Your task to perform on an android device: turn off location history Image 0: 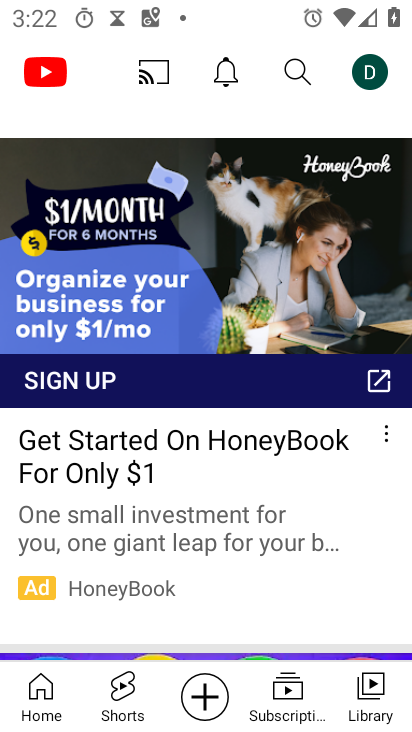
Step 0: press home button
Your task to perform on an android device: turn off location history Image 1: 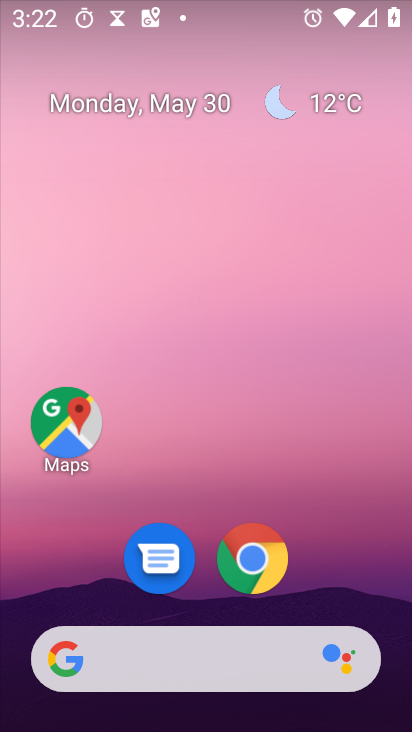
Step 1: drag from (191, 492) to (275, 34)
Your task to perform on an android device: turn off location history Image 2: 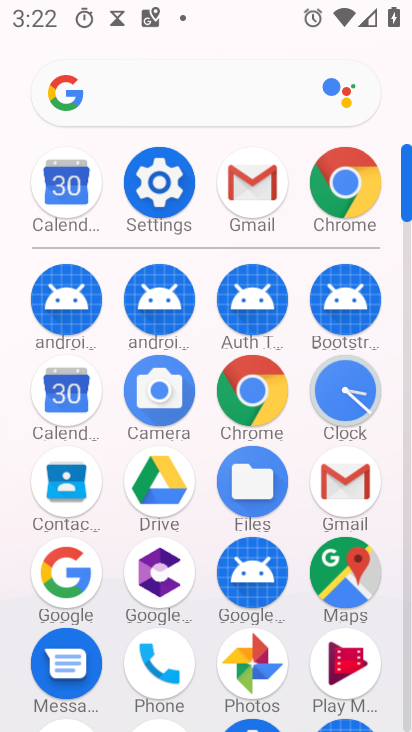
Step 2: click (155, 181)
Your task to perform on an android device: turn off location history Image 3: 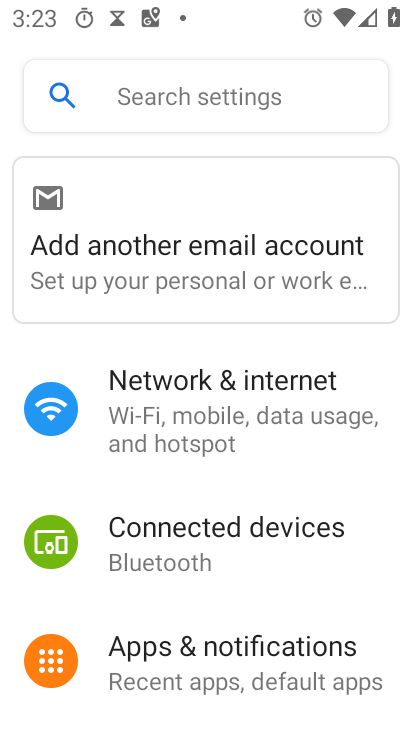
Step 3: drag from (188, 624) to (281, 101)
Your task to perform on an android device: turn off location history Image 4: 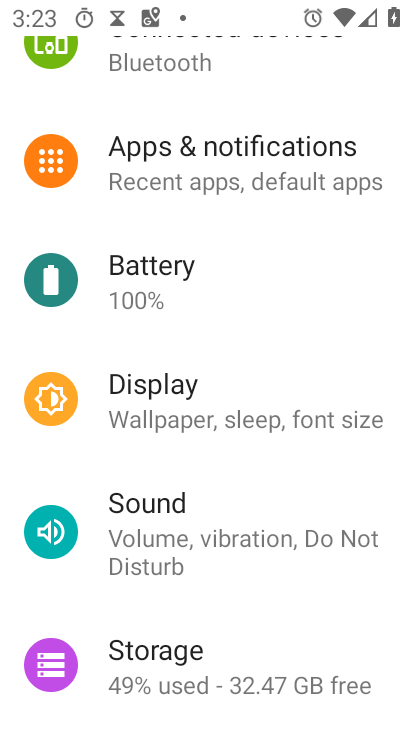
Step 4: drag from (206, 566) to (337, 133)
Your task to perform on an android device: turn off location history Image 5: 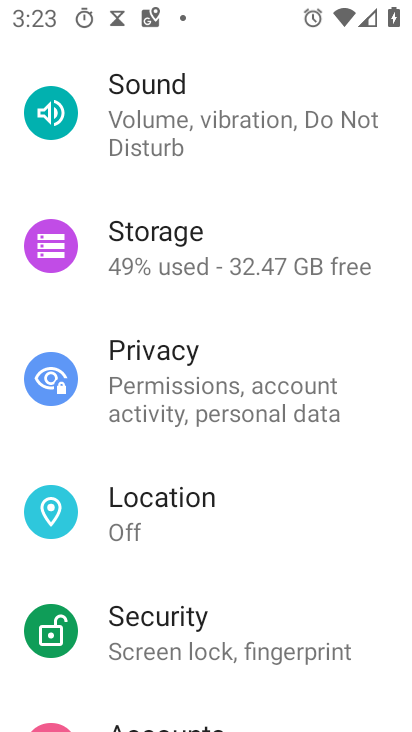
Step 5: click (157, 509)
Your task to perform on an android device: turn off location history Image 6: 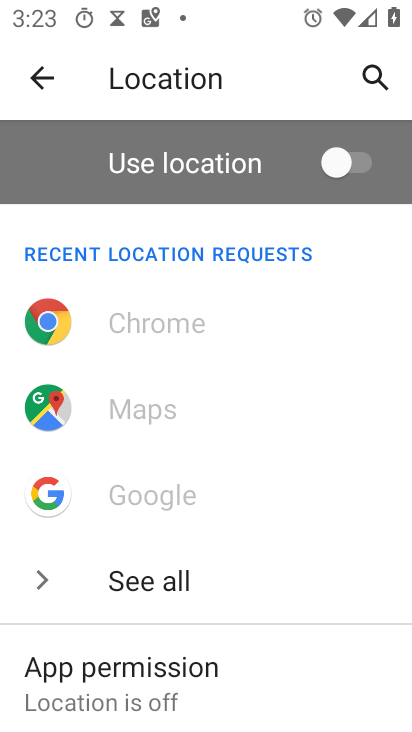
Step 6: drag from (155, 671) to (279, 132)
Your task to perform on an android device: turn off location history Image 7: 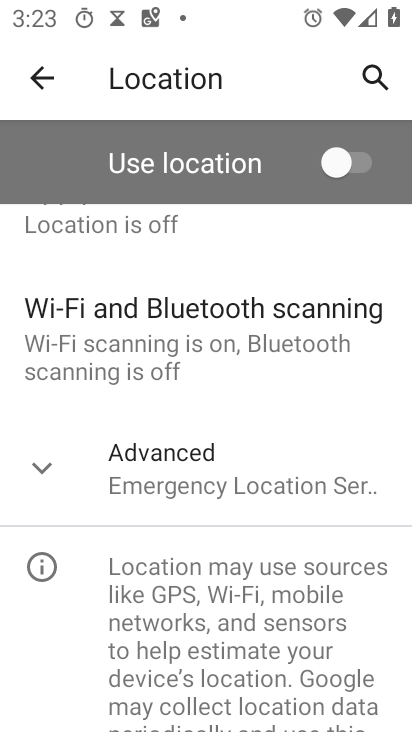
Step 7: click (188, 464)
Your task to perform on an android device: turn off location history Image 8: 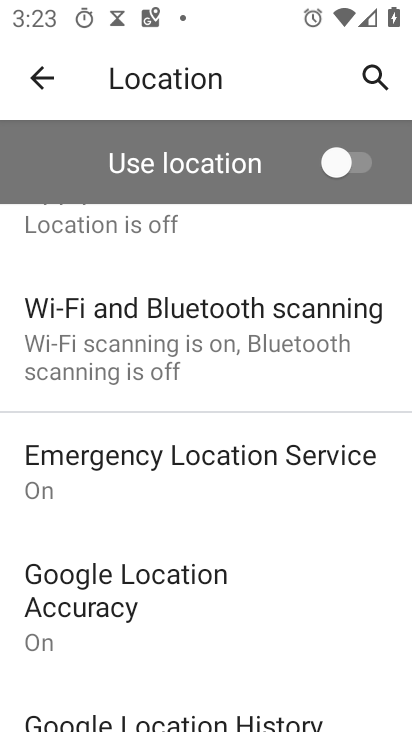
Step 8: drag from (143, 669) to (264, 209)
Your task to perform on an android device: turn off location history Image 9: 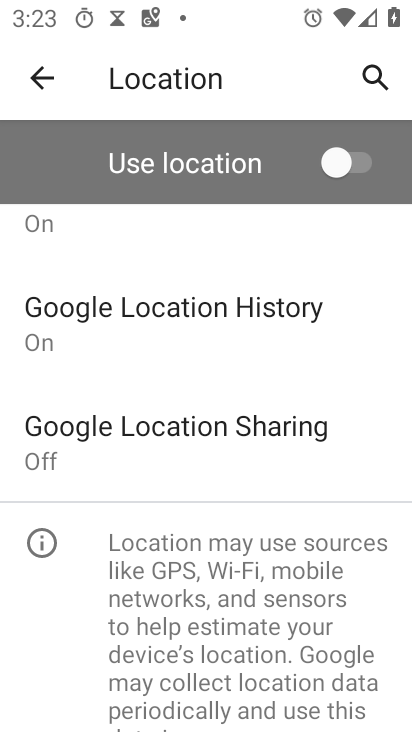
Step 9: click (202, 327)
Your task to perform on an android device: turn off location history Image 10: 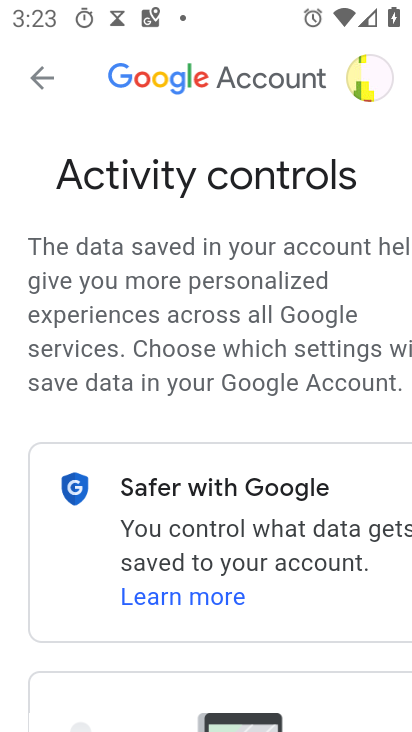
Step 10: drag from (175, 593) to (257, 64)
Your task to perform on an android device: turn off location history Image 11: 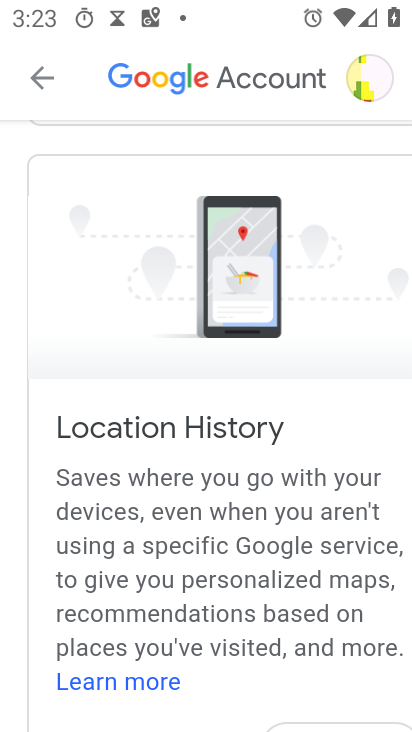
Step 11: drag from (226, 597) to (221, 151)
Your task to perform on an android device: turn off location history Image 12: 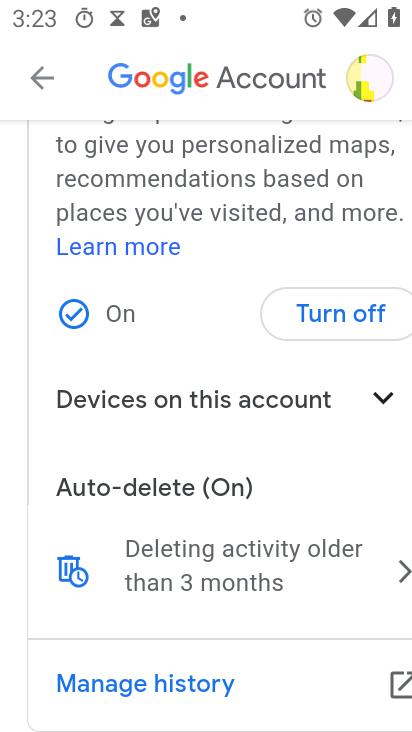
Step 12: click (321, 312)
Your task to perform on an android device: turn off location history Image 13: 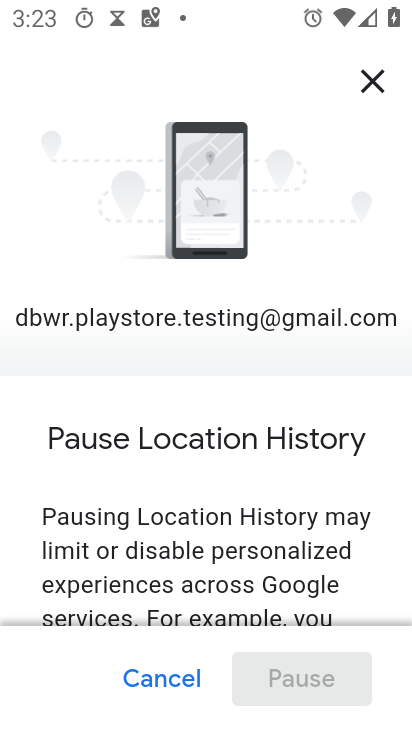
Step 13: drag from (244, 573) to (303, 94)
Your task to perform on an android device: turn off location history Image 14: 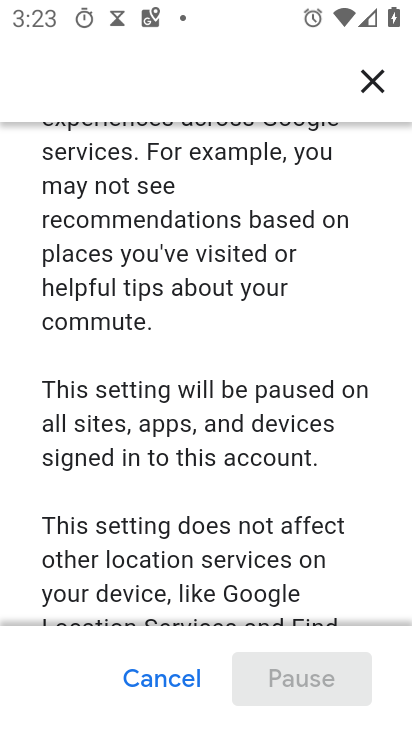
Step 14: drag from (216, 569) to (270, 195)
Your task to perform on an android device: turn off location history Image 15: 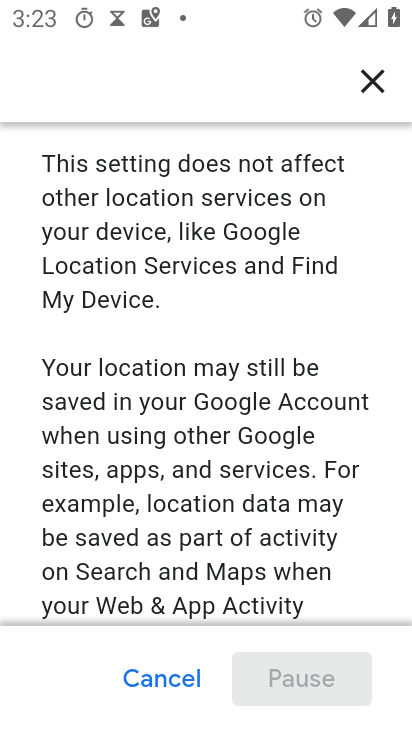
Step 15: drag from (287, 613) to (373, 47)
Your task to perform on an android device: turn off location history Image 16: 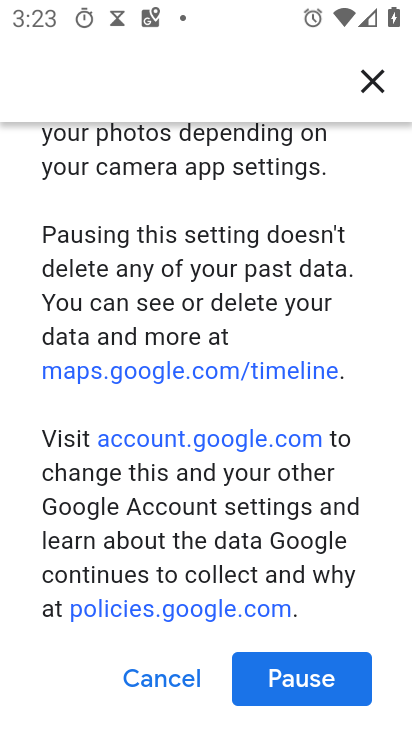
Step 16: drag from (251, 566) to (291, 114)
Your task to perform on an android device: turn off location history Image 17: 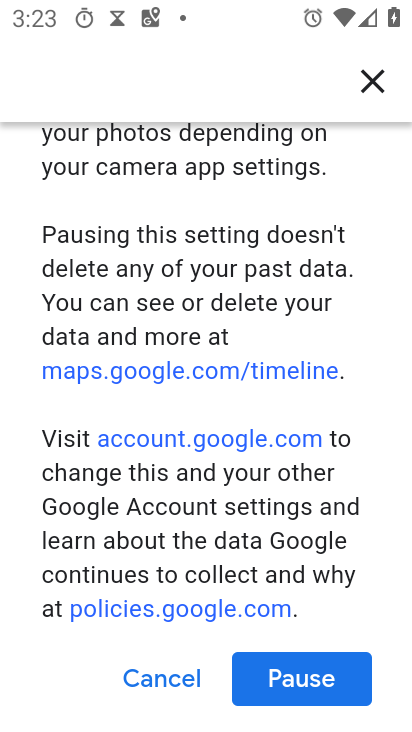
Step 17: click (287, 677)
Your task to perform on an android device: turn off location history Image 18: 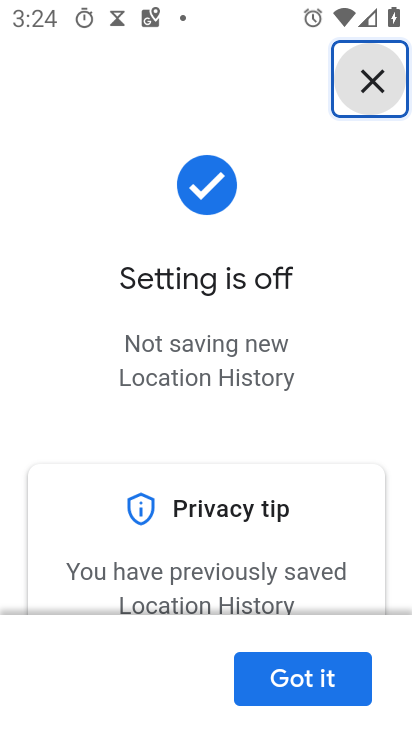
Step 18: click (299, 671)
Your task to perform on an android device: turn off location history Image 19: 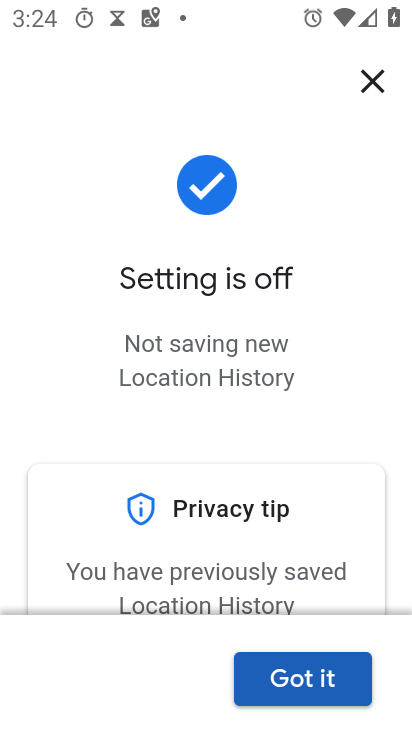
Step 19: click (287, 679)
Your task to perform on an android device: turn off location history Image 20: 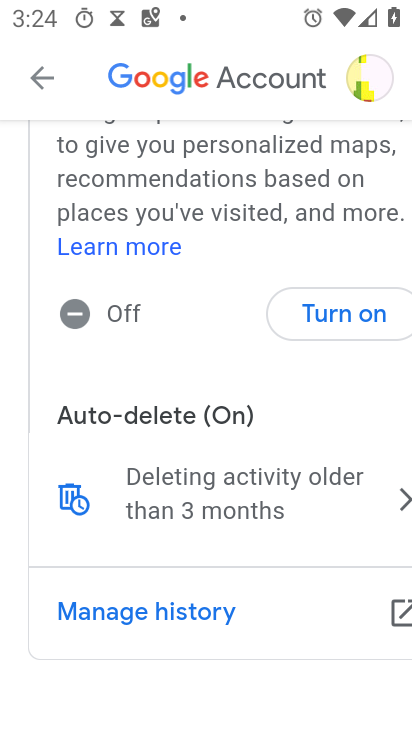
Step 20: task complete